Your task to perform on an android device: turn vacation reply on in the gmail app Image 0: 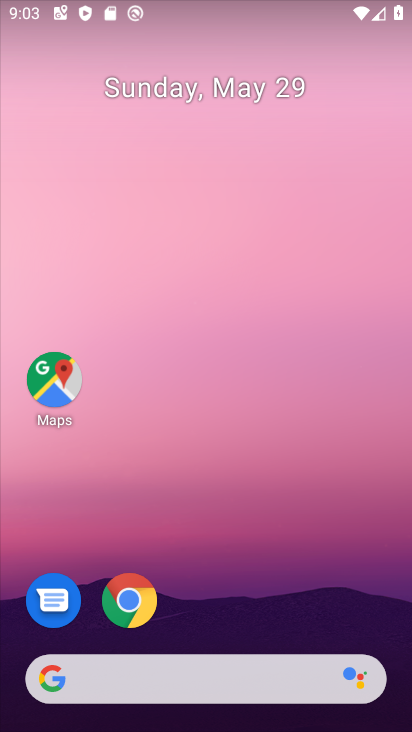
Step 0: drag from (232, 722) to (231, 117)
Your task to perform on an android device: turn vacation reply on in the gmail app Image 1: 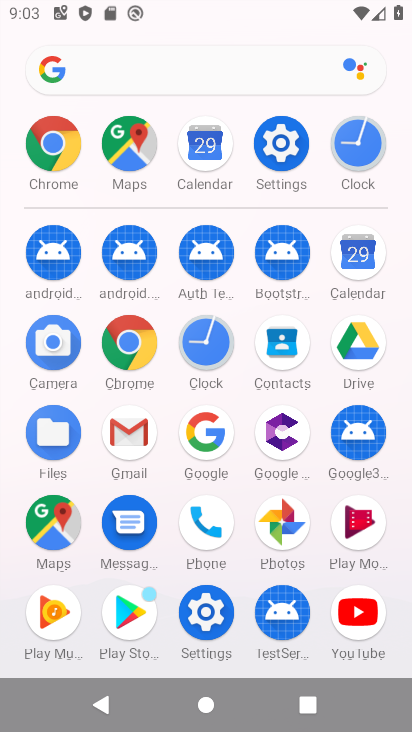
Step 1: click (124, 436)
Your task to perform on an android device: turn vacation reply on in the gmail app Image 2: 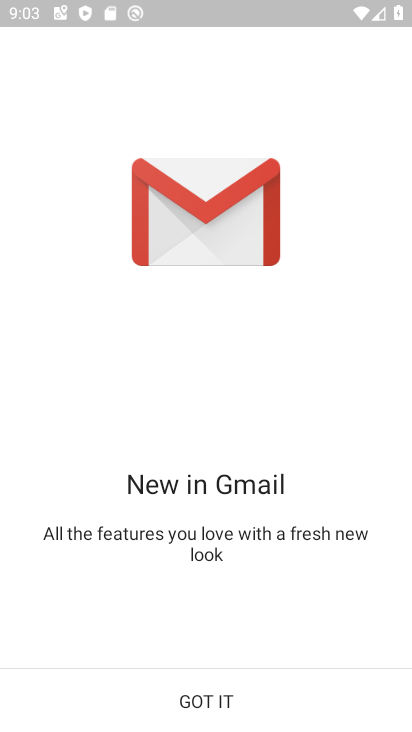
Step 2: click (224, 696)
Your task to perform on an android device: turn vacation reply on in the gmail app Image 3: 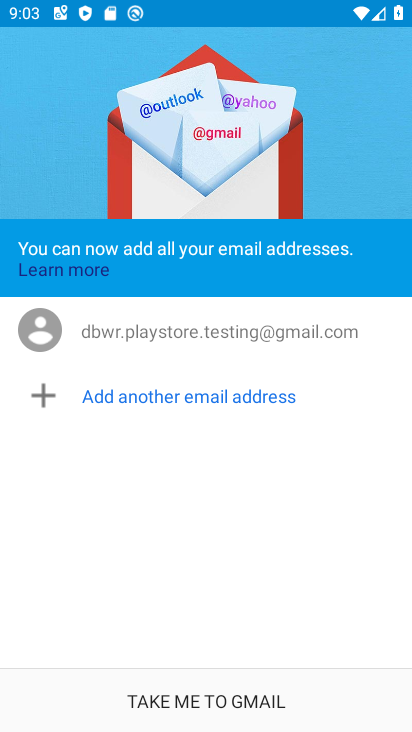
Step 3: click (252, 695)
Your task to perform on an android device: turn vacation reply on in the gmail app Image 4: 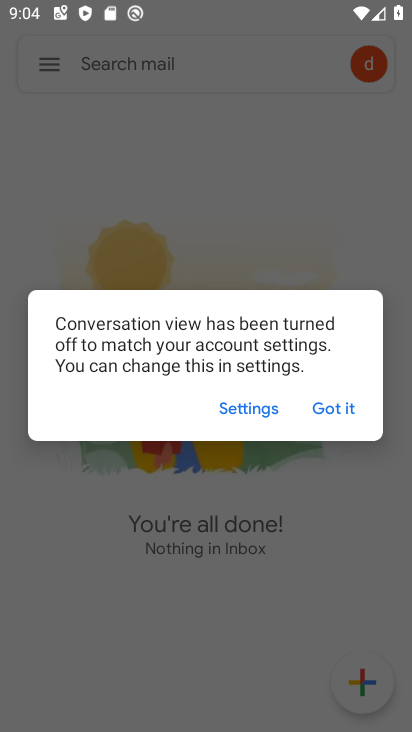
Step 4: click (340, 410)
Your task to perform on an android device: turn vacation reply on in the gmail app Image 5: 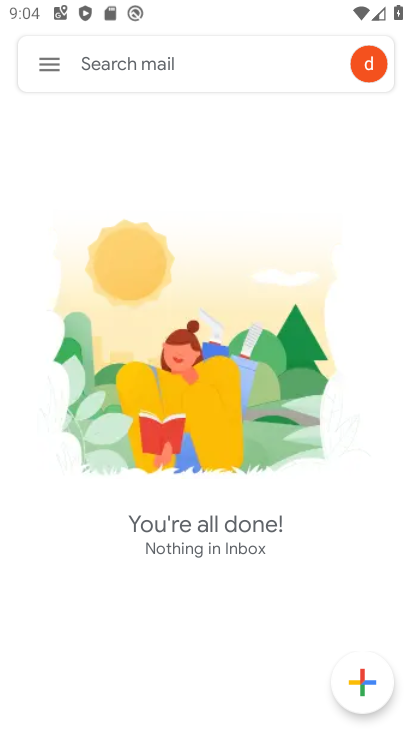
Step 5: click (48, 59)
Your task to perform on an android device: turn vacation reply on in the gmail app Image 6: 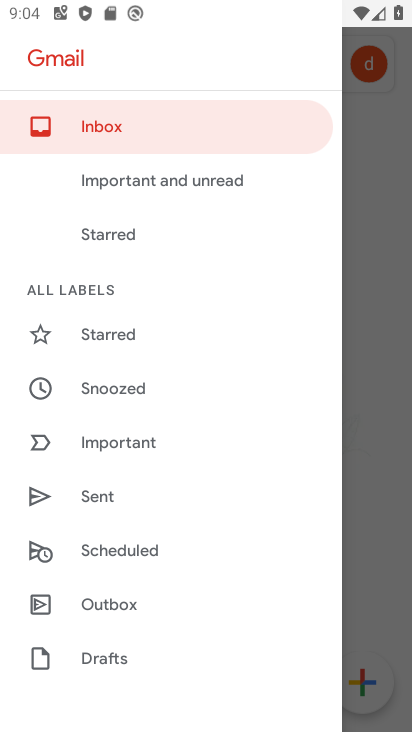
Step 6: drag from (115, 661) to (120, 210)
Your task to perform on an android device: turn vacation reply on in the gmail app Image 7: 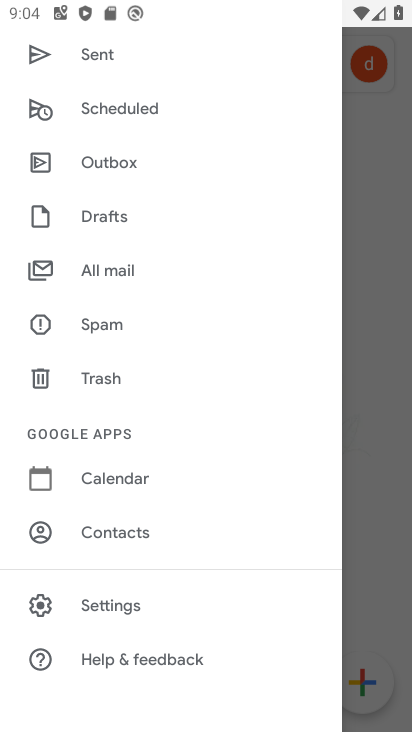
Step 7: click (118, 601)
Your task to perform on an android device: turn vacation reply on in the gmail app Image 8: 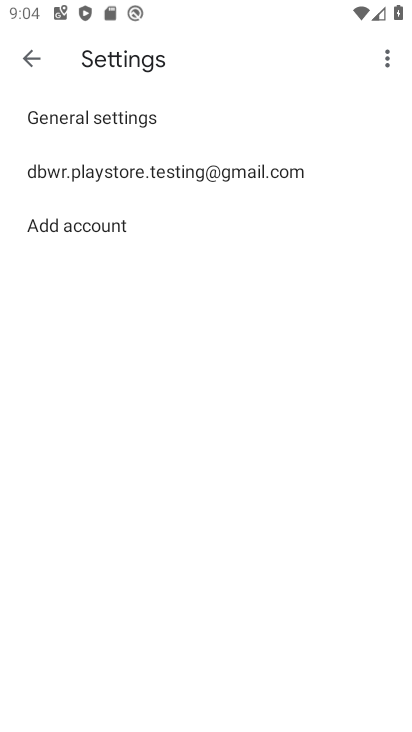
Step 8: click (194, 162)
Your task to perform on an android device: turn vacation reply on in the gmail app Image 9: 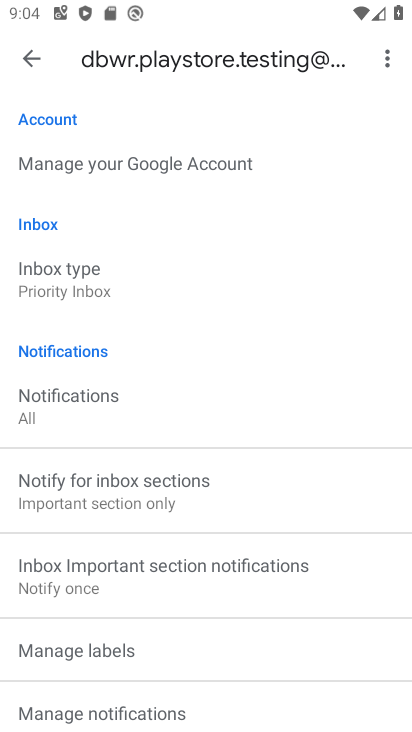
Step 9: drag from (118, 700) to (128, 214)
Your task to perform on an android device: turn vacation reply on in the gmail app Image 10: 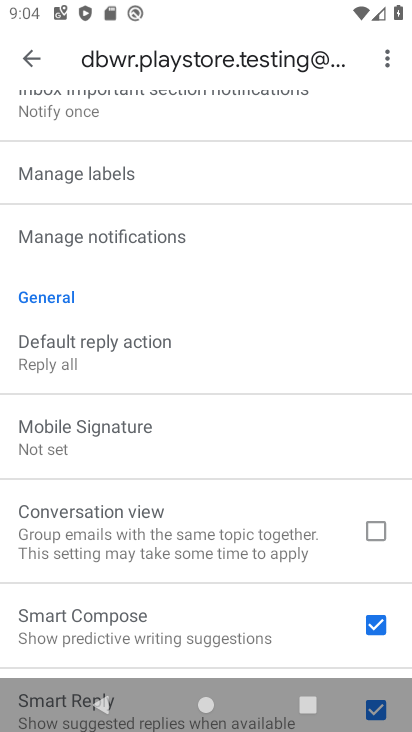
Step 10: drag from (159, 643) to (162, 267)
Your task to perform on an android device: turn vacation reply on in the gmail app Image 11: 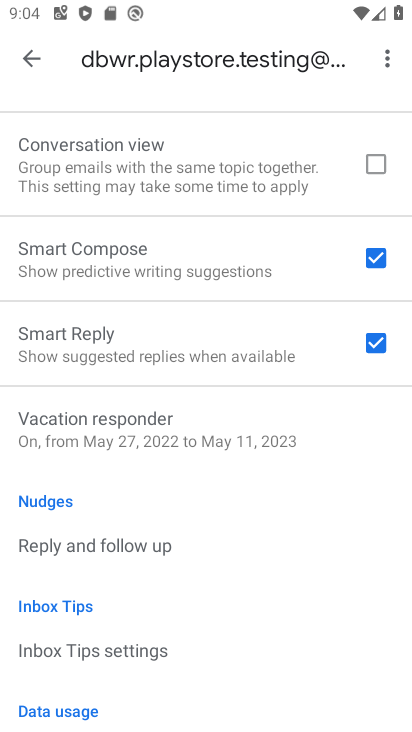
Step 11: click (103, 433)
Your task to perform on an android device: turn vacation reply on in the gmail app Image 12: 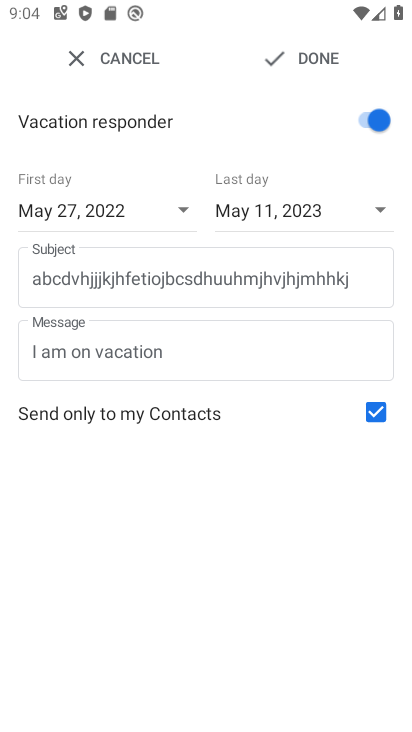
Step 12: task complete